Your task to perform on an android device: Open the calendar app, open the side menu, and click the "Day" option Image 0: 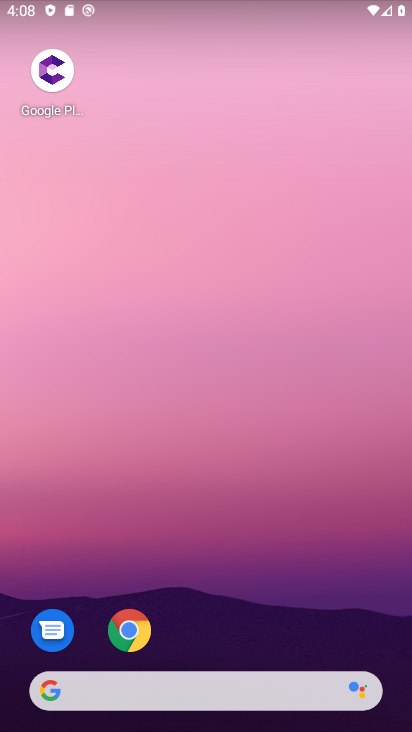
Step 0: drag from (270, 621) to (223, 15)
Your task to perform on an android device: Open the calendar app, open the side menu, and click the "Day" option Image 1: 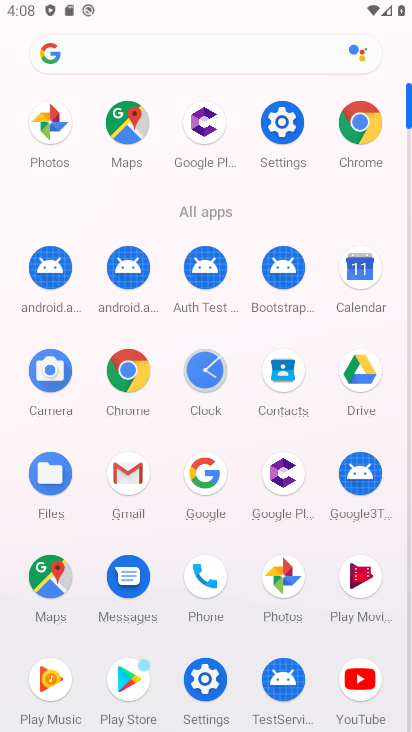
Step 1: click (365, 136)
Your task to perform on an android device: Open the calendar app, open the side menu, and click the "Day" option Image 2: 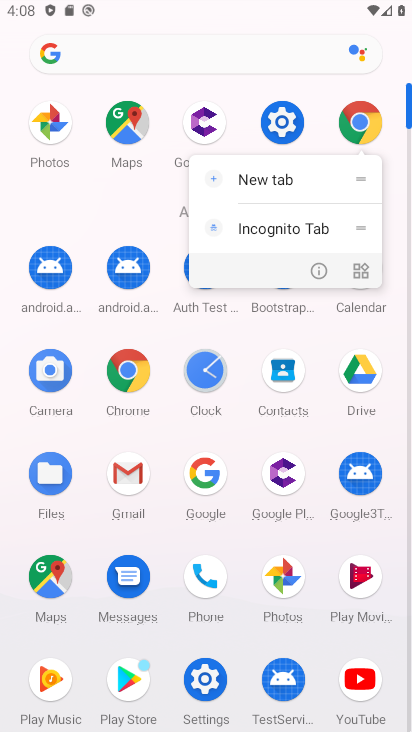
Step 2: click (365, 135)
Your task to perform on an android device: Open the calendar app, open the side menu, and click the "Day" option Image 3: 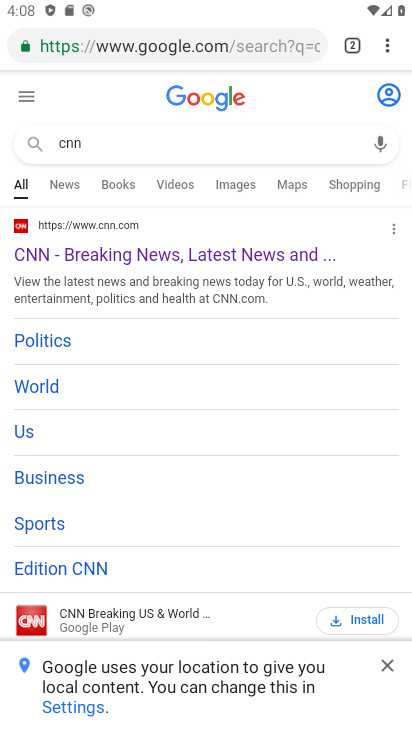
Step 3: press home button
Your task to perform on an android device: Open the calendar app, open the side menu, and click the "Day" option Image 4: 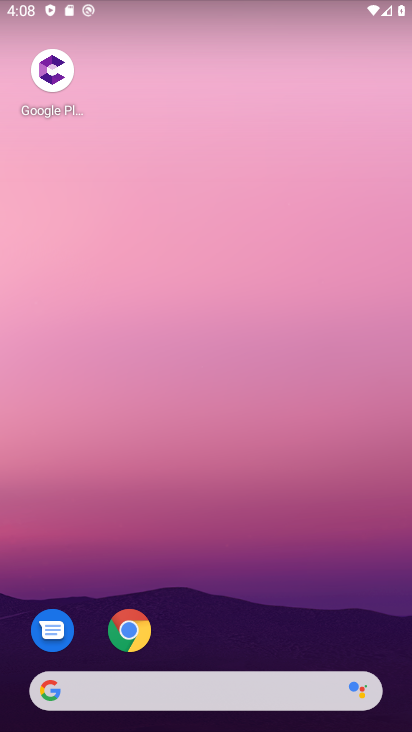
Step 4: drag from (197, 644) to (347, 0)
Your task to perform on an android device: Open the calendar app, open the side menu, and click the "Day" option Image 5: 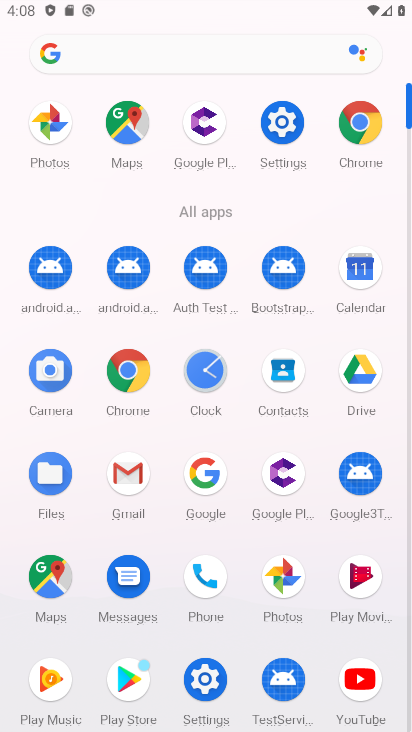
Step 5: click (363, 273)
Your task to perform on an android device: Open the calendar app, open the side menu, and click the "Day" option Image 6: 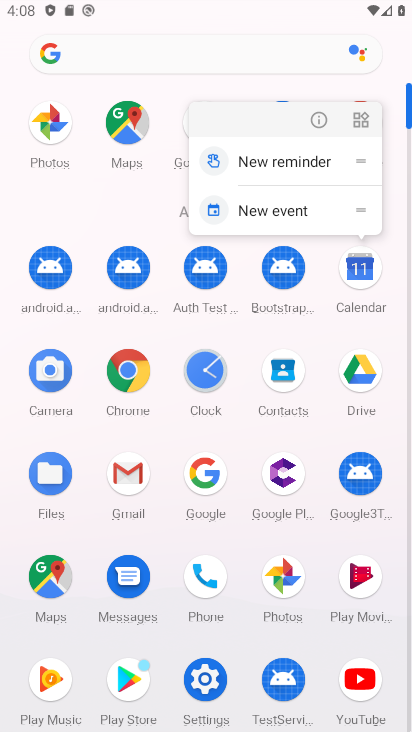
Step 6: click (358, 282)
Your task to perform on an android device: Open the calendar app, open the side menu, and click the "Day" option Image 7: 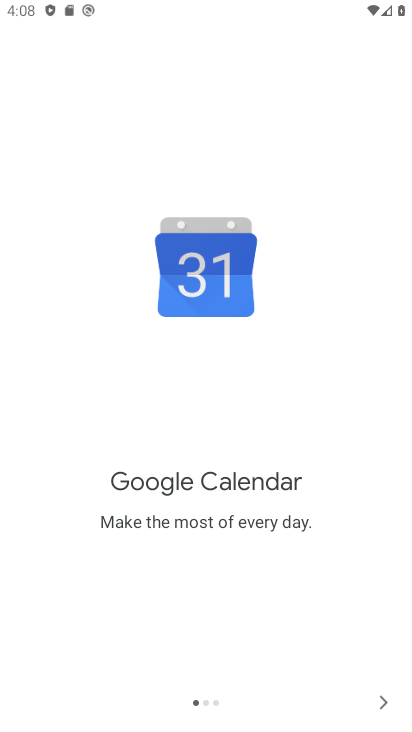
Step 7: click (386, 705)
Your task to perform on an android device: Open the calendar app, open the side menu, and click the "Day" option Image 8: 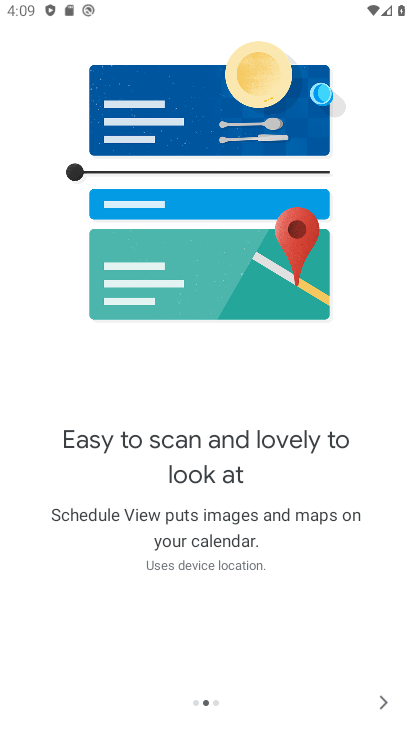
Step 8: click (383, 694)
Your task to perform on an android device: Open the calendar app, open the side menu, and click the "Day" option Image 9: 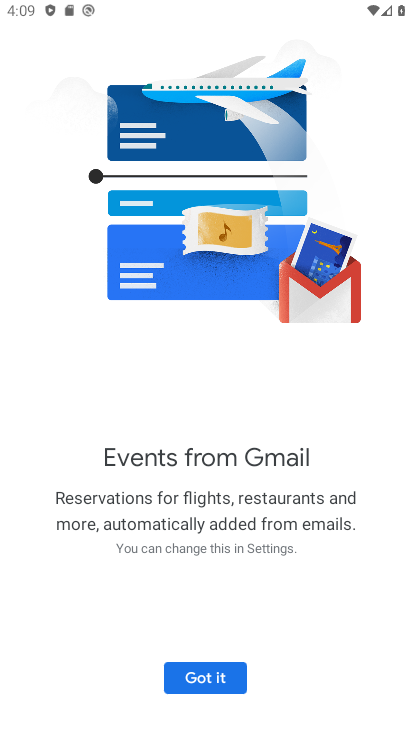
Step 9: click (209, 686)
Your task to perform on an android device: Open the calendar app, open the side menu, and click the "Day" option Image 10: 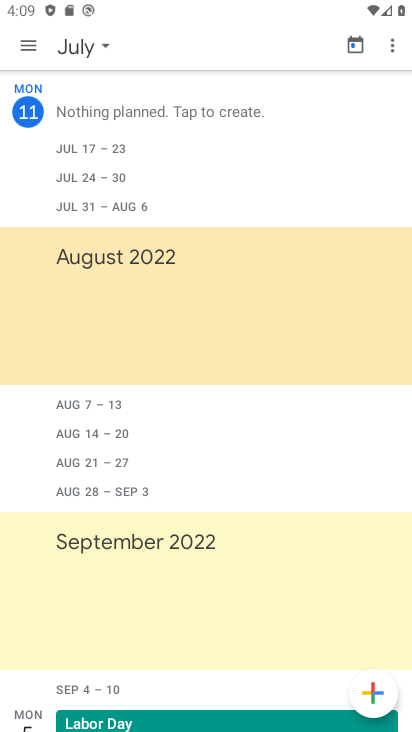
Step 10: click (36, 37)
Your task to perform on an android device: Open the calendar app, open the side menu, and click the "Day" option Image 11: 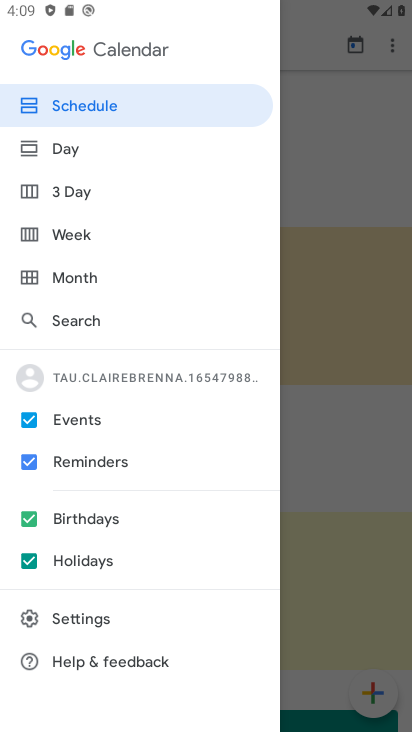
Step 11: click (48, 146)
Your task to perform on an android device: Open the calendar app, open the side menu, and click the "Day" option Image 12: 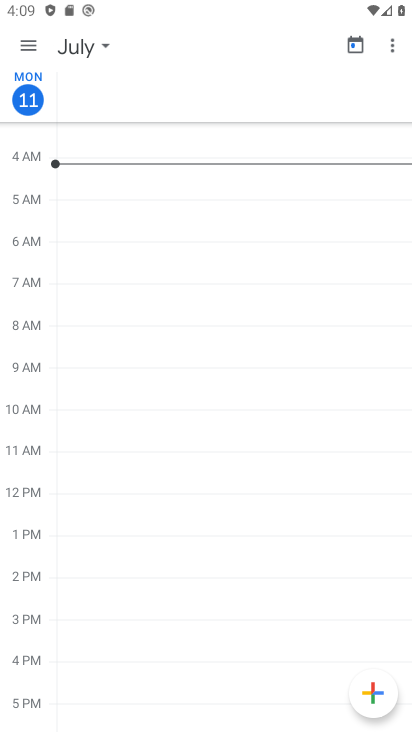
Step 12: task complete